Your task to perform on an android device: Open Google Chrome and open the bookmarks view Image 0: 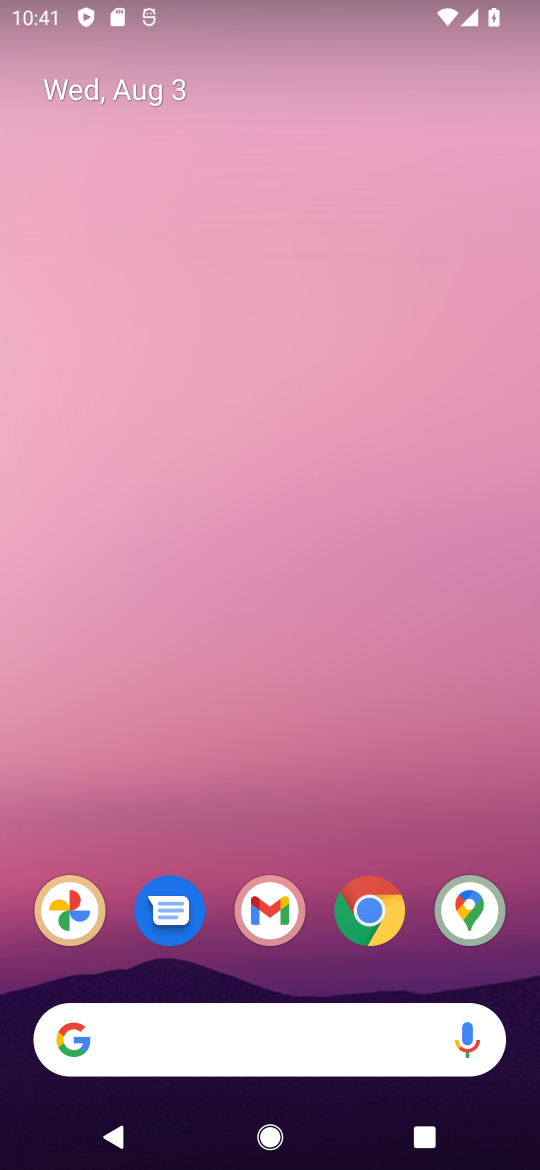
Step 0: press home button
Your task to perform on an android device: Open Google Chrome and open the bookmarks view Image 1: 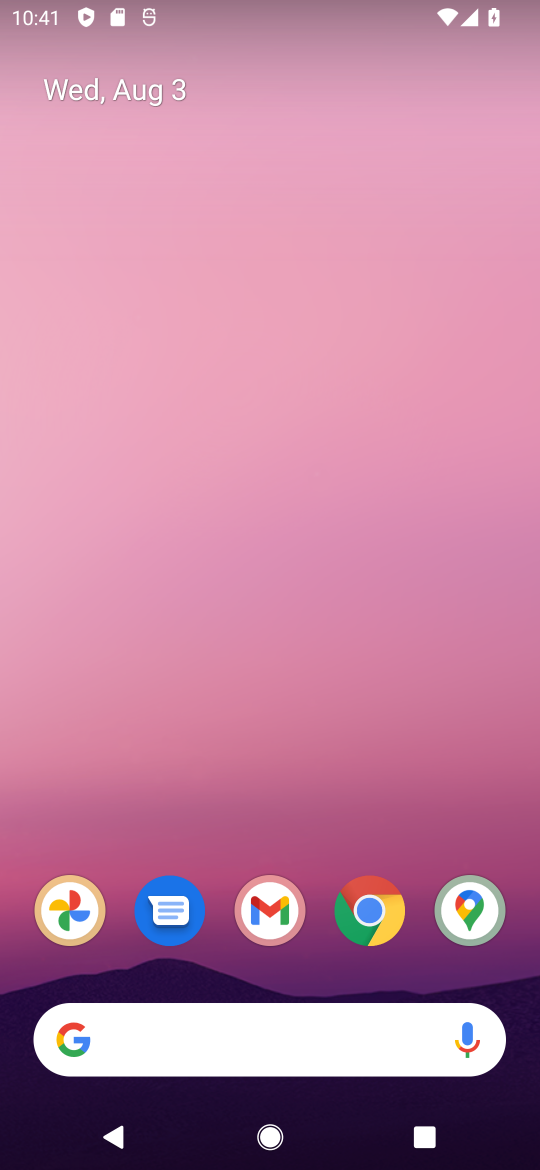
Step 1: click (365, 898)
Your task to perform on an android device: Open Google Chrome and open the bookmarks view Image 2: 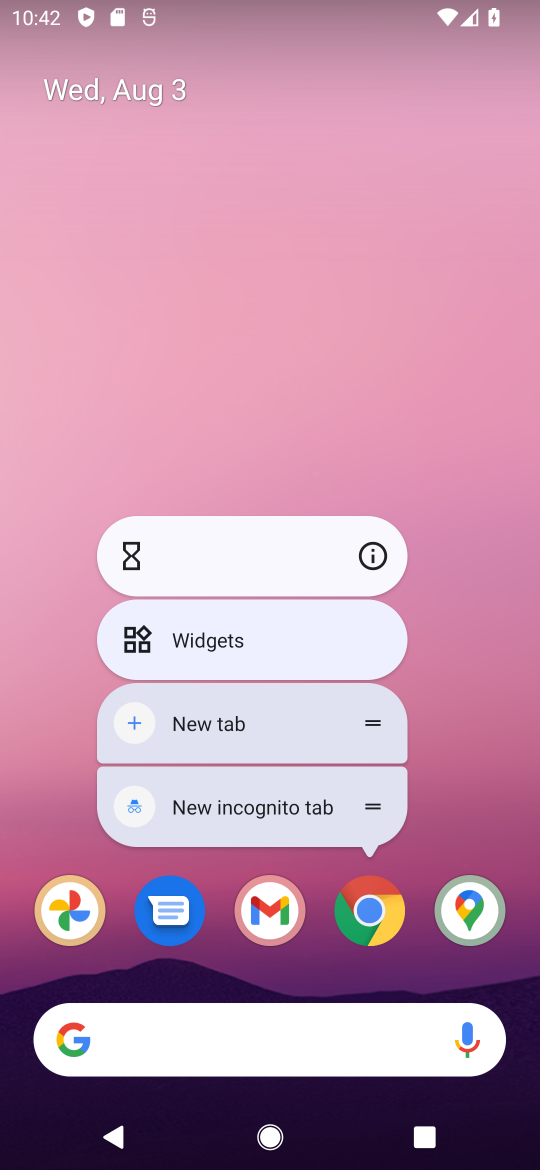
Step 2: click (374, 917)
Your task to perform on an android device: Open Google Chrome and open the bookmarks view Image 3: 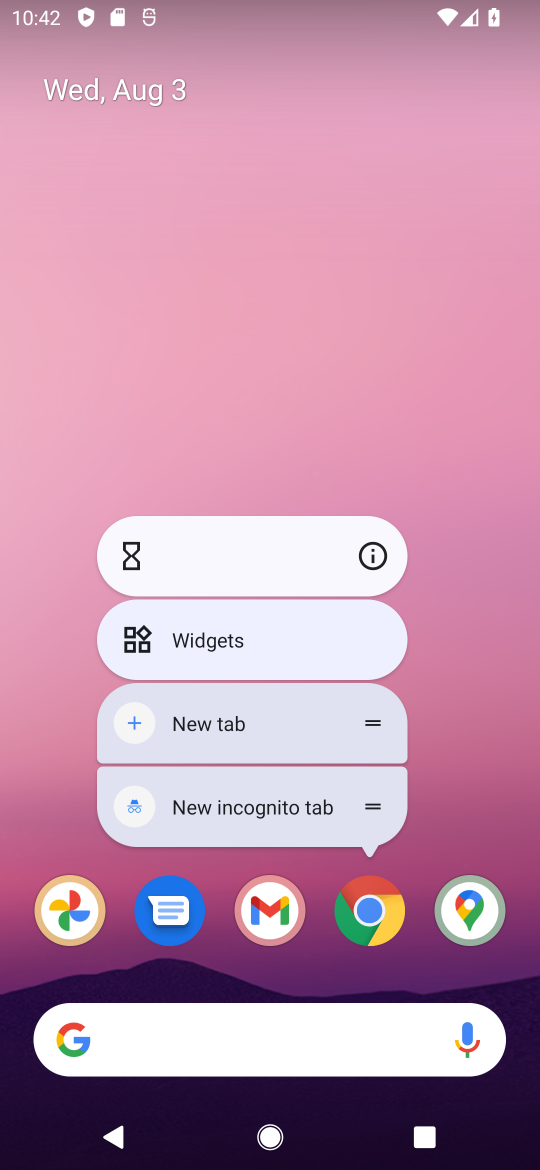
Step 3: click (358, 906)
Your task to perform on an android device: Open Google Chrome and open the bookmarks view Image 4: 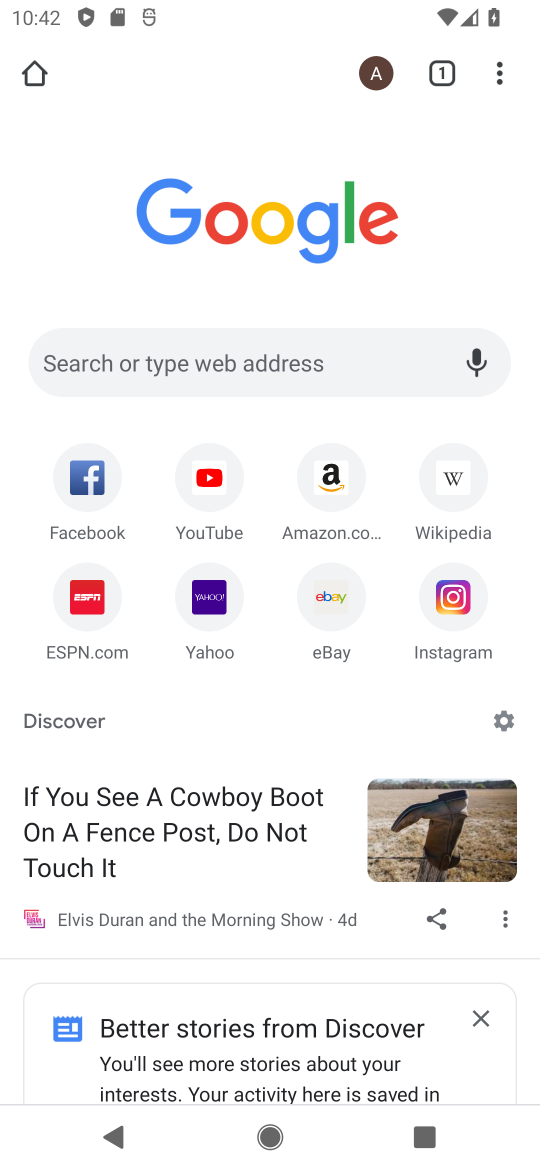
Step 4: click (501, 62)
Your task to perform on an android device: Open Google Chrome and open the bookmarks view Image 5: 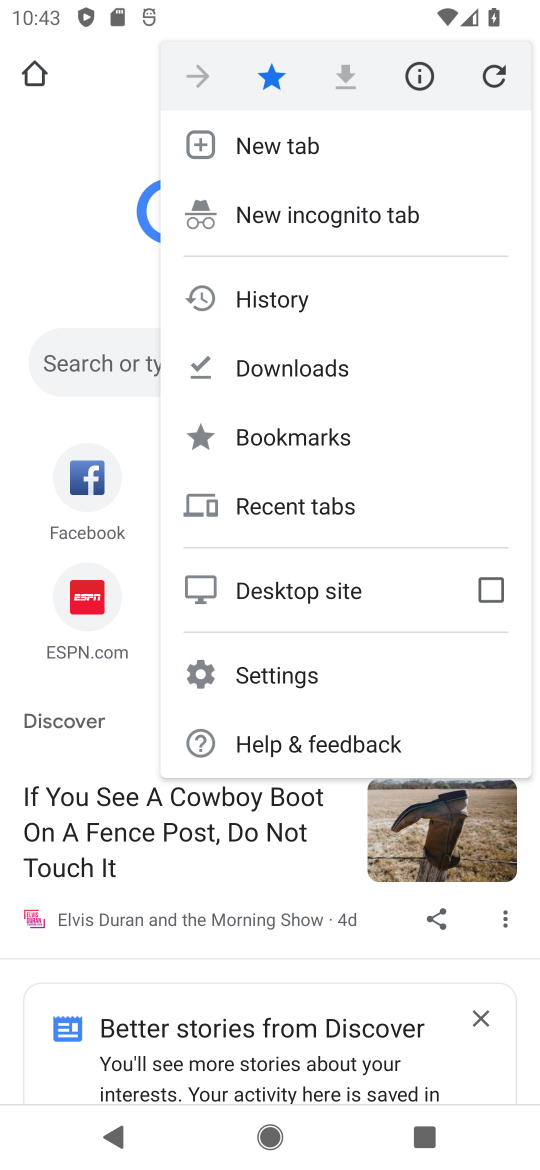
Step 5: click (363, 435)
Your task to perform on an android device: Open Google Chrome and open the bookmarks view Image 6: 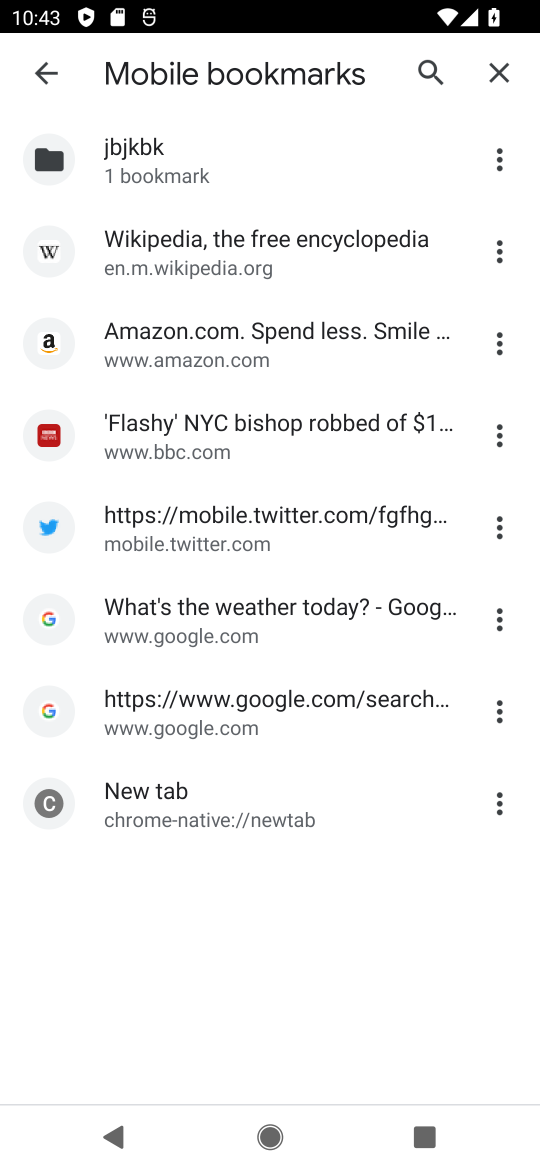
Step 6: click (224, 536)
Your task to perform on an android device: Open Google Chrome and open the bookmarks view Image 7: 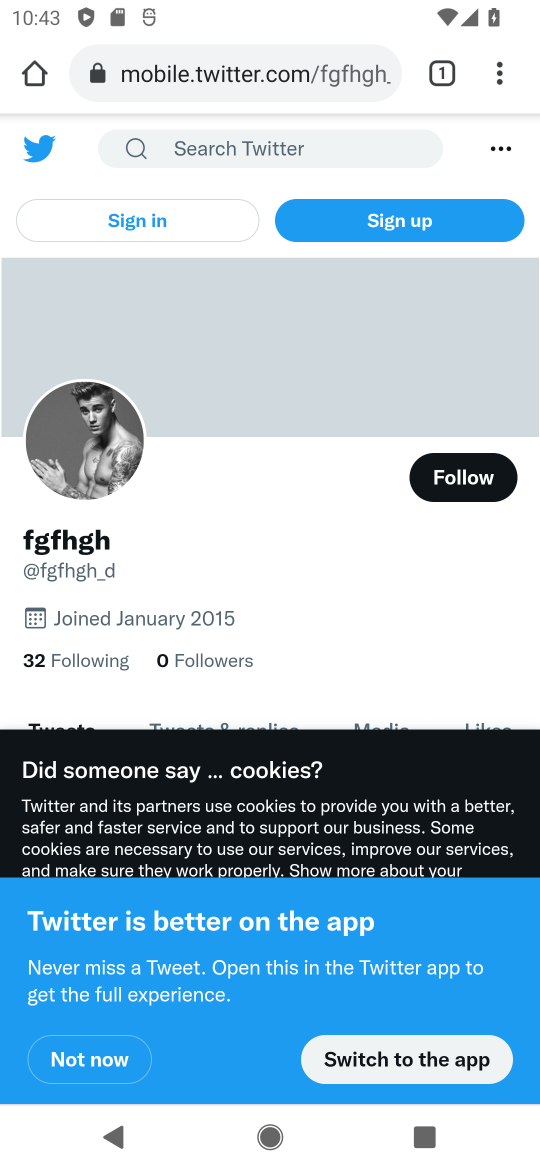
Step 7: task complete